Your task to perform on an android device: change the clock style Image 0: 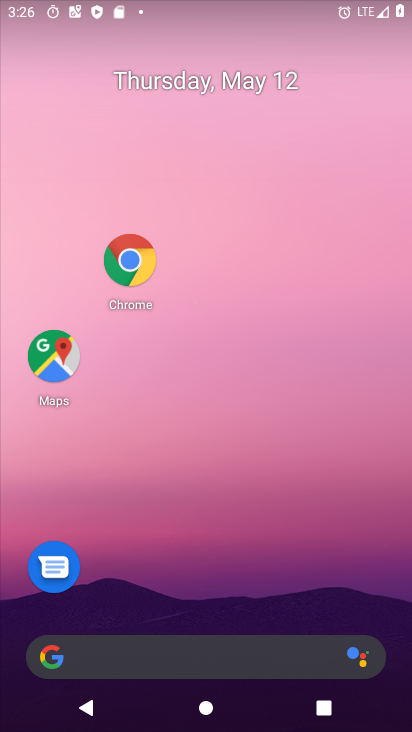
Step 0: drag from (164, 603) to (193, 226)
Your task to perform on an android device: change the clock style Image 1: 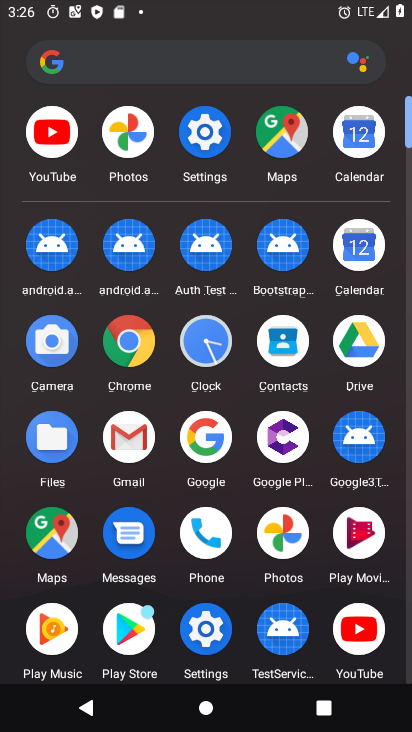
Step 1: click (219, 317)
Your task to perform on an android device: change the clock style Image 2: 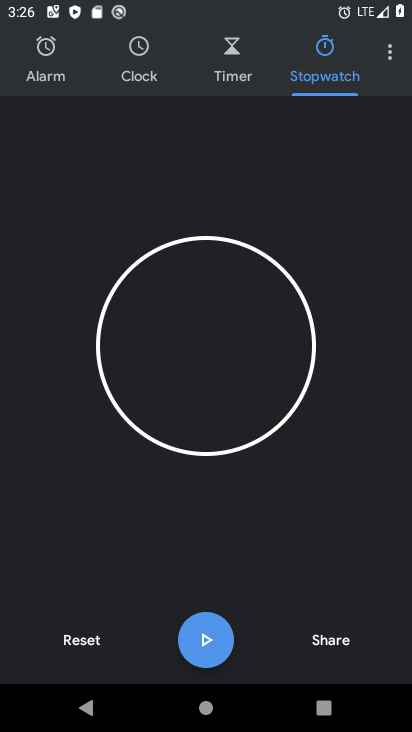
Step 2: click (397, 53)
Your task to perform on an android device: change the clock style Image 3: 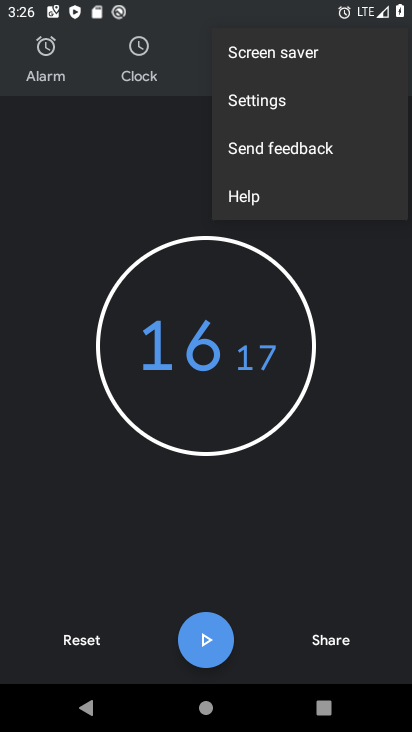
Step 3: click (290, 104)
Your task to perform on an android device: change the clock style Image 4: 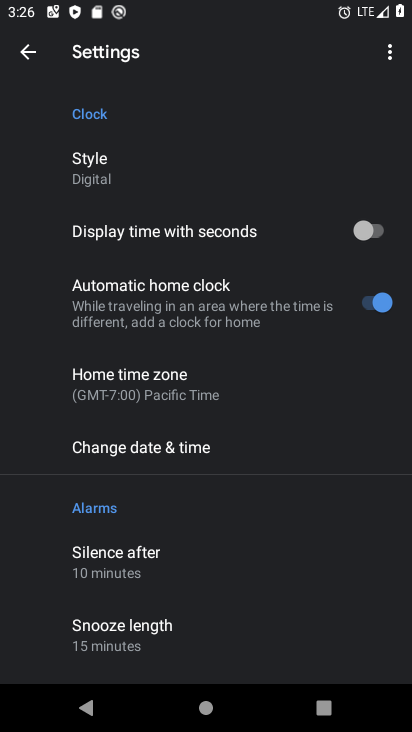
Step 4: click (111, 182)
Your task to perform on an android device: change the clock style Image 5: 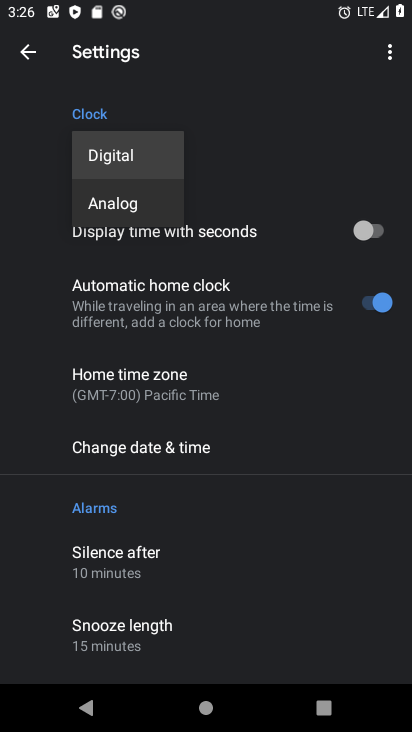
Step 5: click (125, 205)
Your task to perform on an android device: change the clock style Image 6: 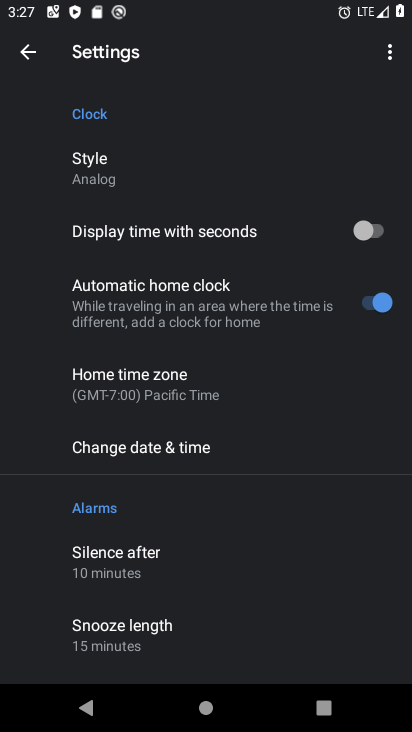
Step 6: task complete